Your task to perform on an android device: Show me popular videos on Youtube Image 0: 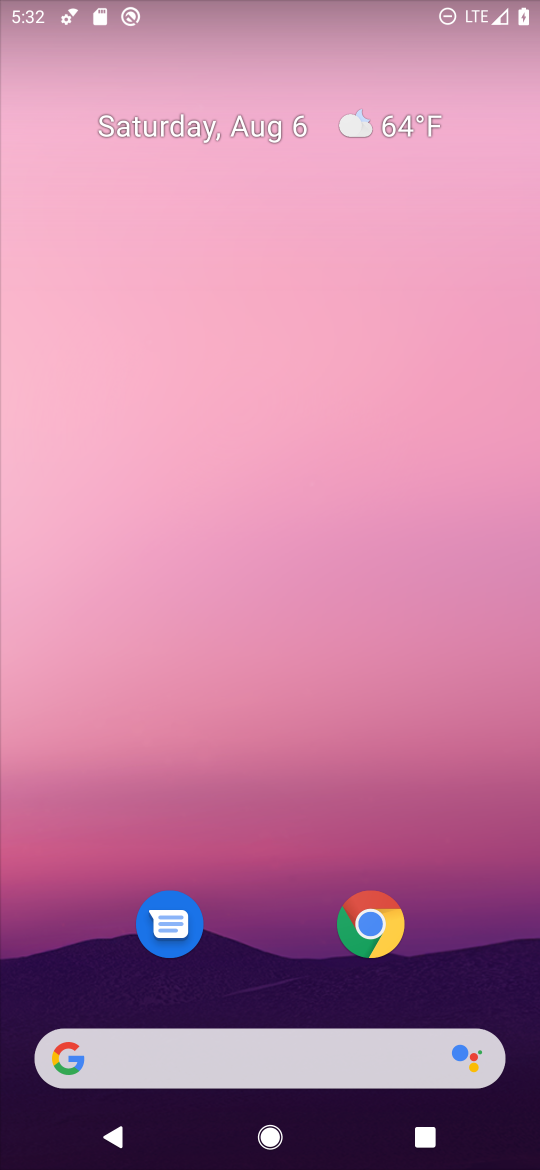
Step 0: drag from (288, 891) to (280, 100)
Your task to perform on an android device: Show me popular videos on Youtube Image 1: 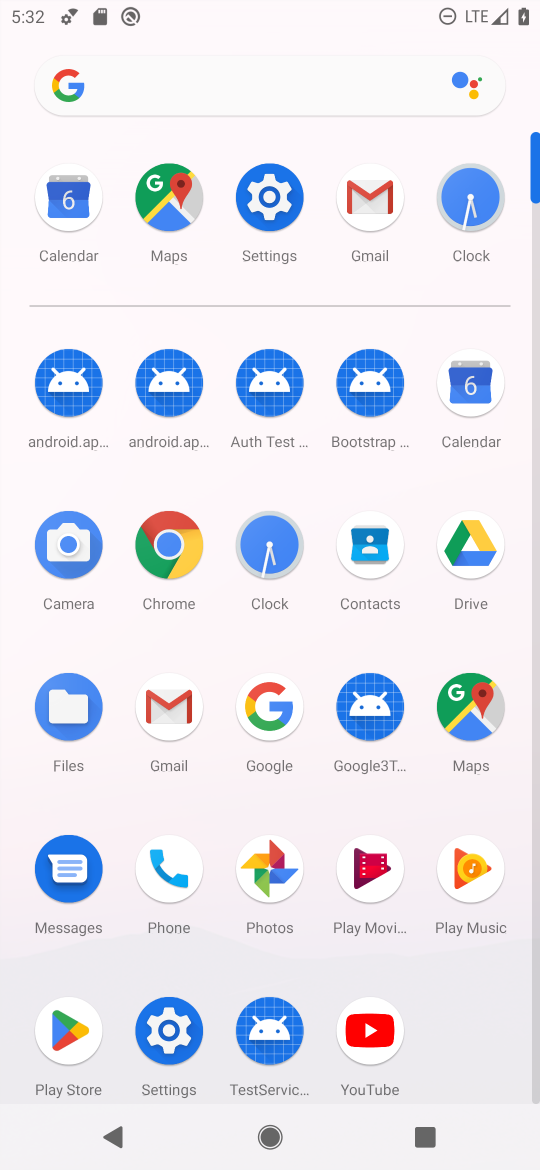
Step 1: drag from (254, 662) to (254, 98)
Your task to perform on an android device: Show me popular videos on Youtube Image 2: 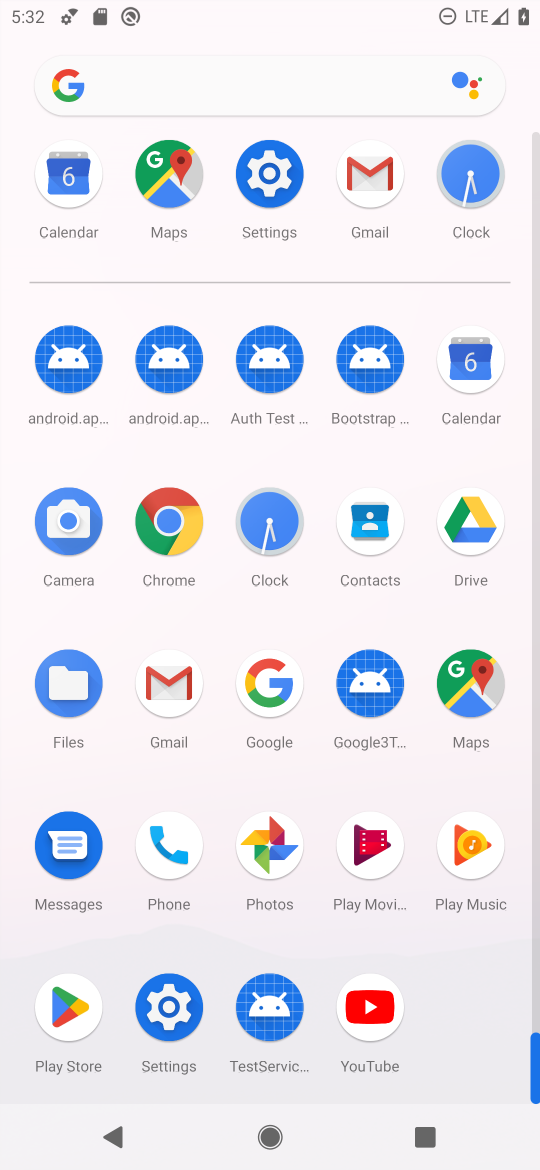
Step 2: click (367, 1005)
Your task to perform on an android device: Show me popular videos on Youtube Image 3: 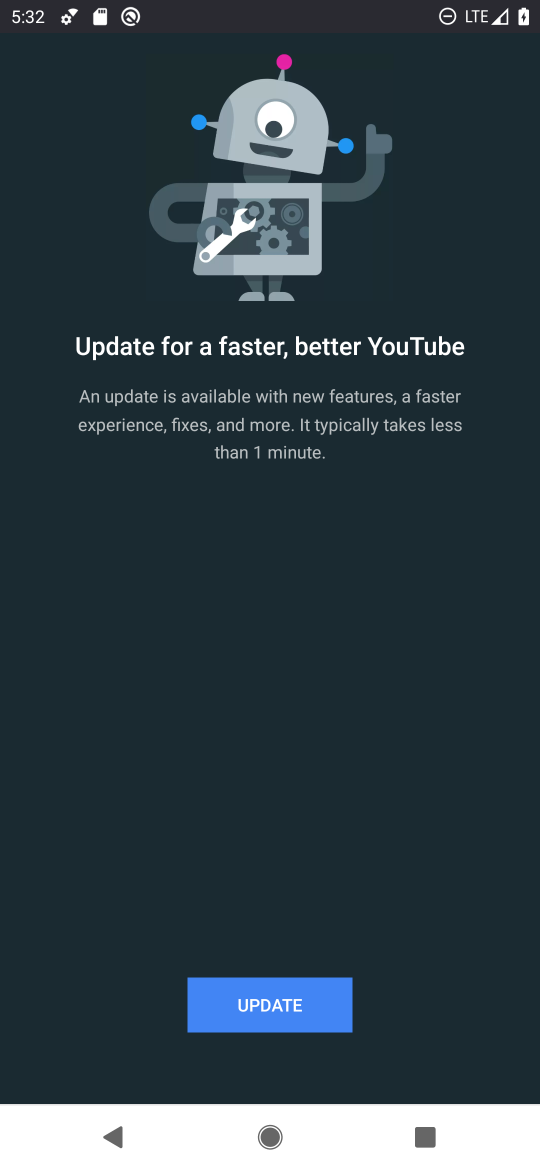
Step 3: click (268, 1004)
Your task to perform on an android device: Show me popular videos on Youtube Image 4: 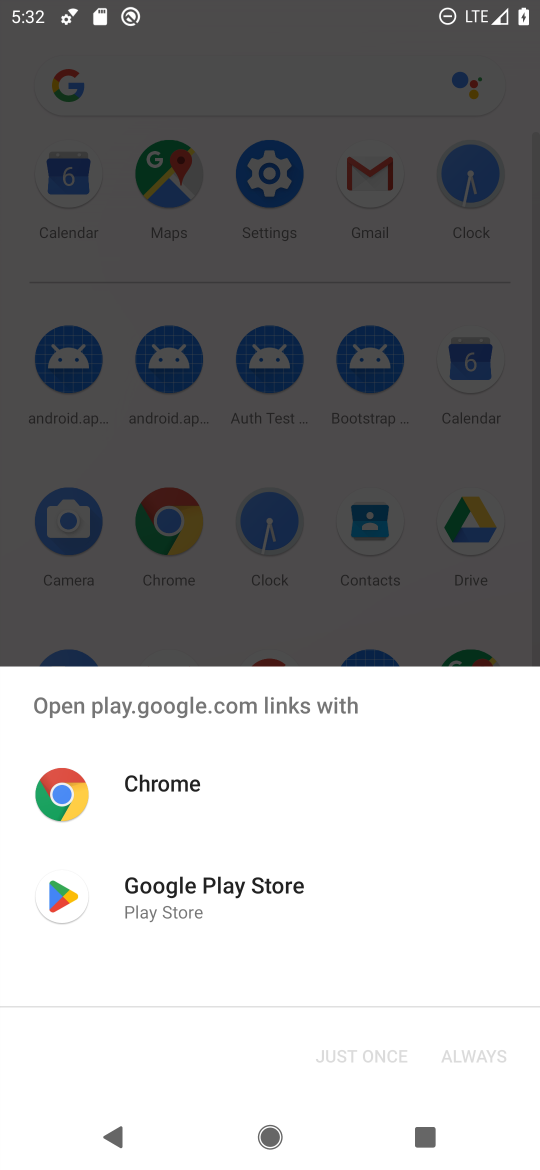
Step 4: click (204, 872)
Your task to perform on an android device: Show me popular videos on Youtube Image 5: 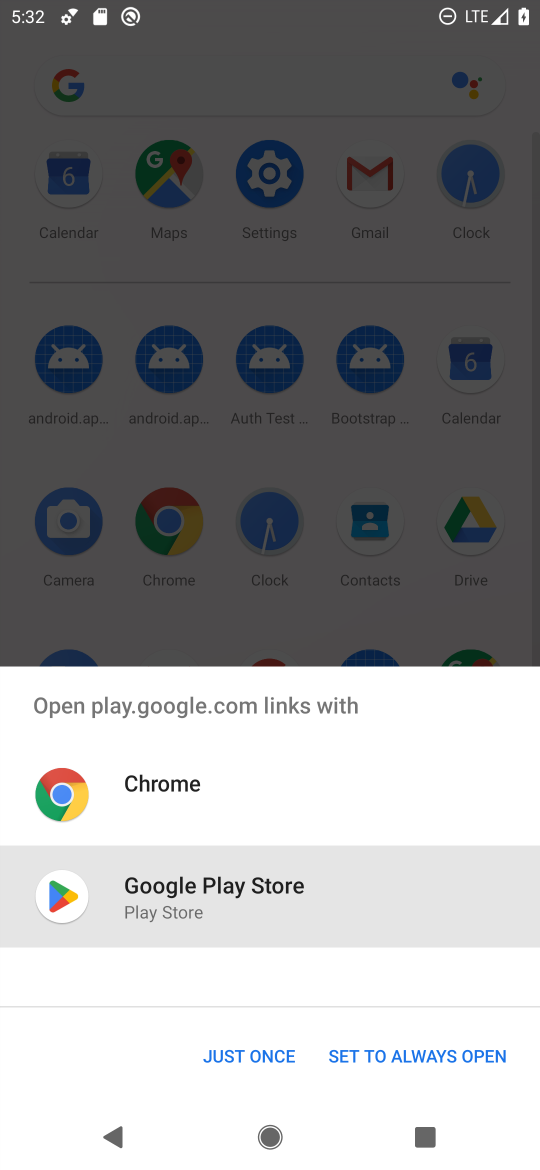
Step 5: click (251, 1039)
Your task to perform on an android device: Show me popular videos on Youtube Image 6: 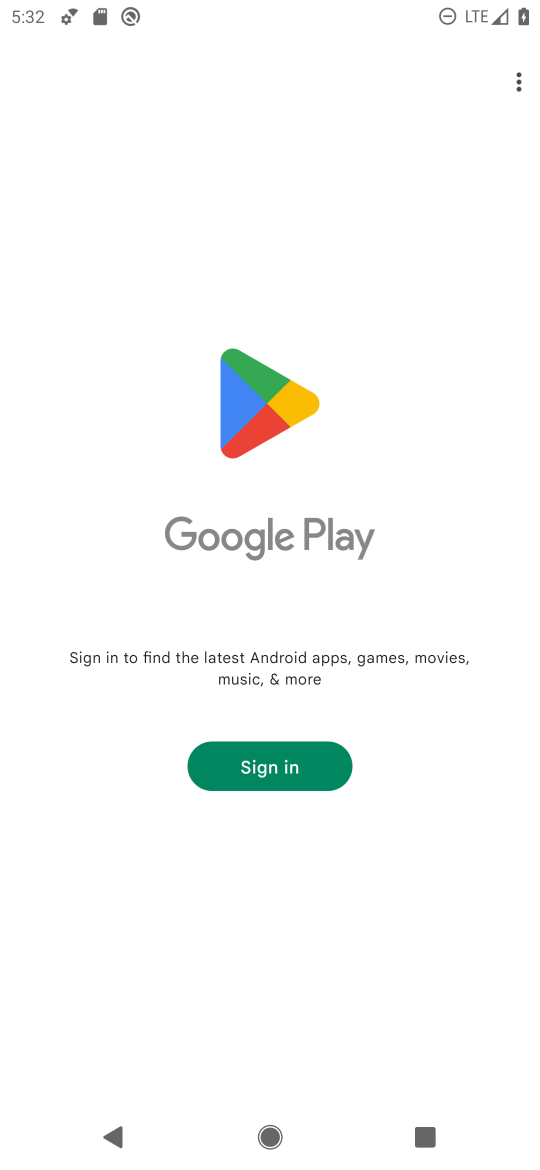
Step 6: task complete